Your task to perform on an android device: turn on showing notifications on the lock screen Image 0: 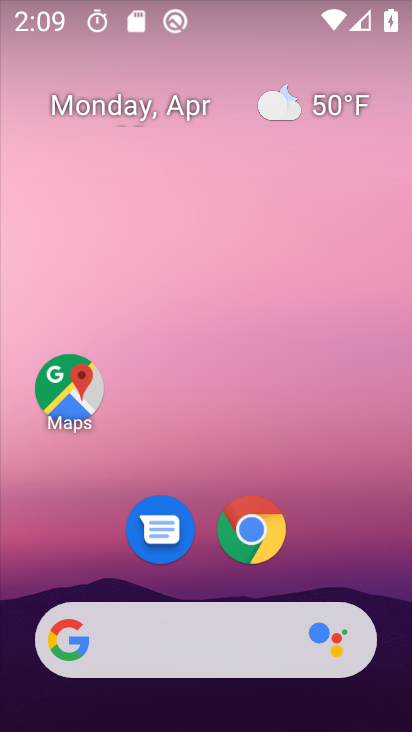
Step 0: drag from (347, 254) to (343, 173)
Your task to perform on an android device: turn on showing notifications on the lock screen Image 1: 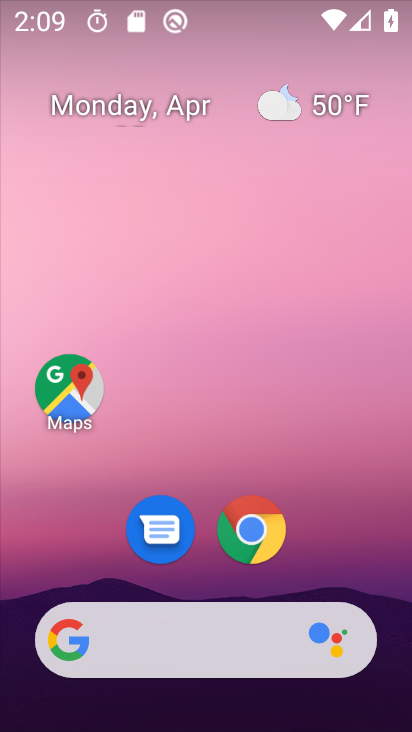
Step 1: drag from (396, 666) to (385, 214)
Your task to perform on an android device: turn on showing notifications on the lock screen Image 2: 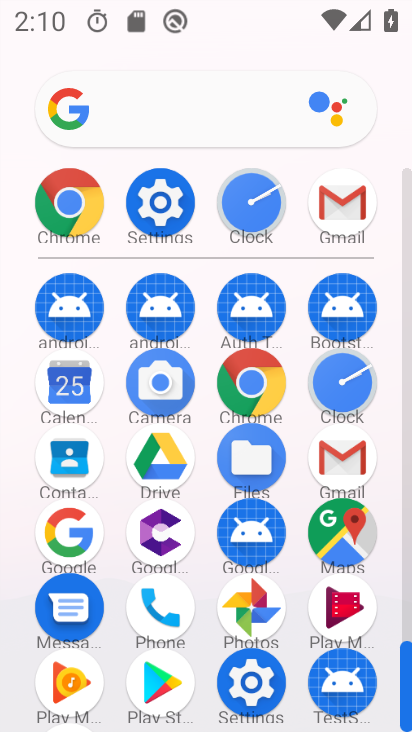
Step 2: click (151, 196)
Your task to perform on an android device: turn on showing notifications on the lock screen Image 3: 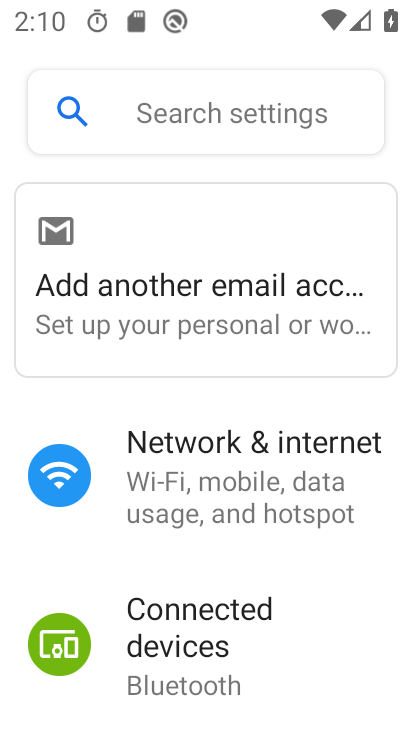
Step 3: click (319, 419)
Your task to perform on an android device: turn on showing notifications on the lock screen Image 4: 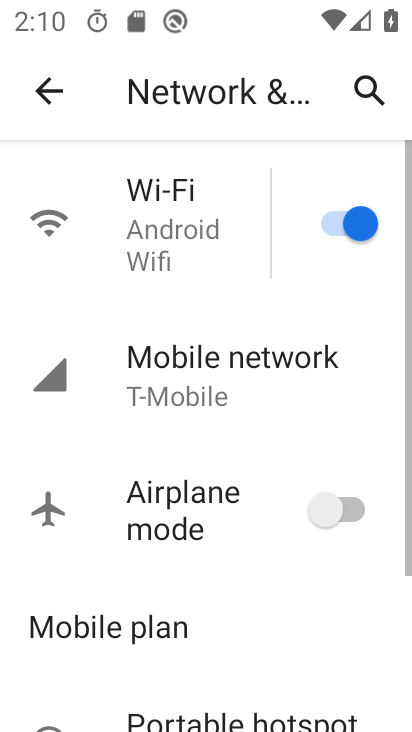
Step 4: drag from (358, 689) to (318, 447)
Your task to perform on an android device: turn on showing notifications on the lock screen Image 5: 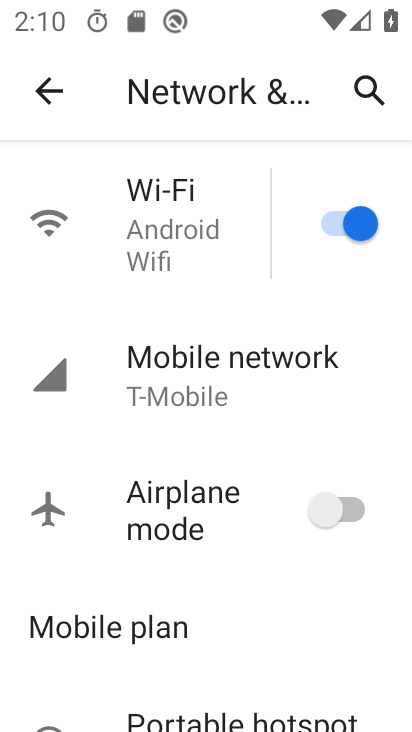
Step 5: click (40, 83)
Your task to perform on an android device: turn on showing notifications on the lock screen Image 6: 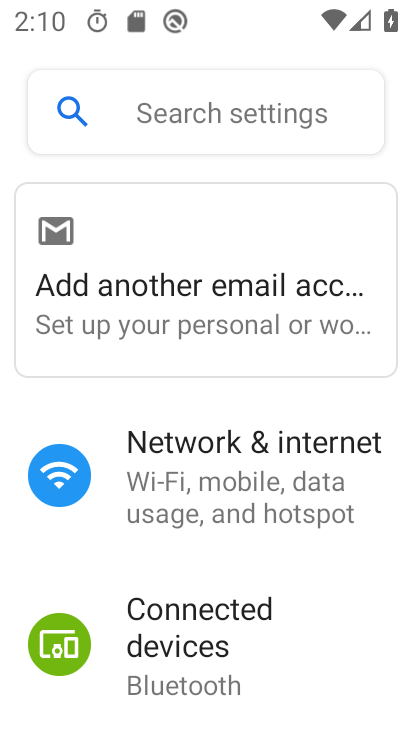
Step 6: drag from (363, 417) to (358, 292)
Your task to perform on an android device: turn on showing notifications on the lock screen Image 7: 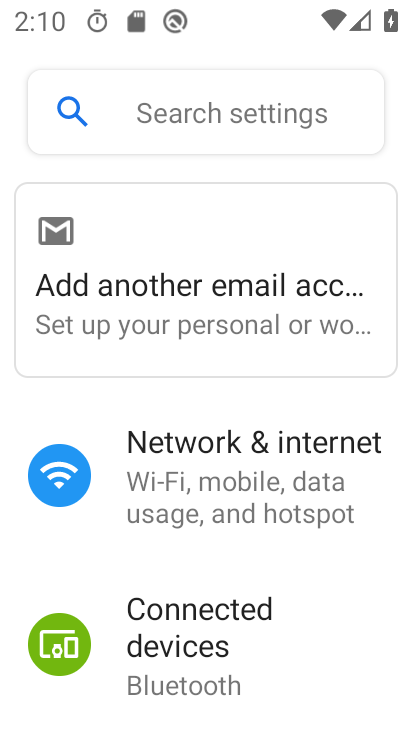
Step 7: drag from (350, 677) to (356, 189)
Your task to perform on an android device: turn on showing notifications on the lock screen Image 8: 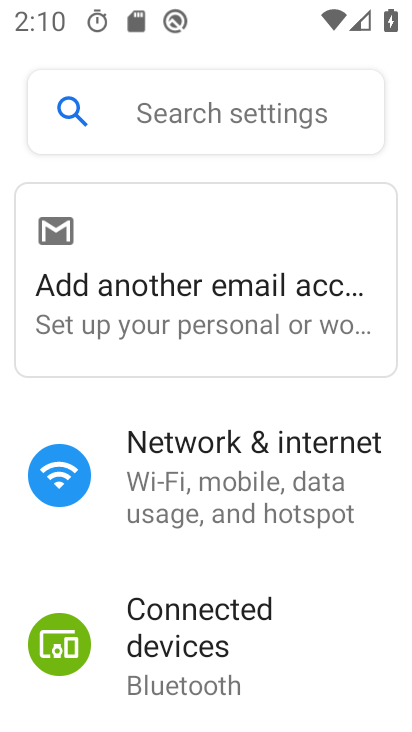
Step 8: drag from (346, 564) to (334, 417)
Your task to perform on an android device: turn on showing notifications on the lock screen Image 9: 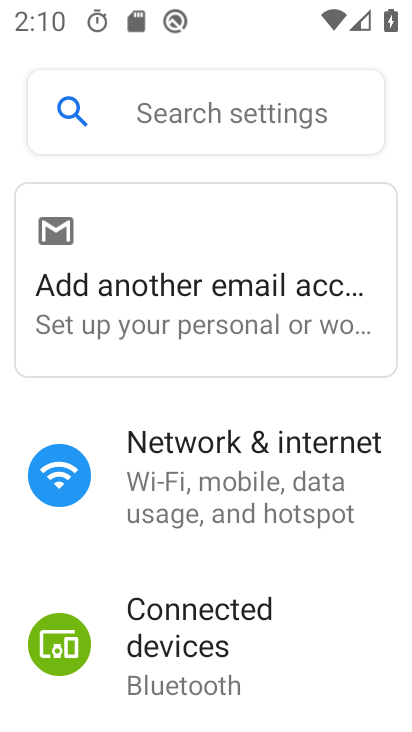
Step 9: drag from (378, 250) to (378, 215)
Your task to perform on an android device: turn on showing notifications on the lock screen Image 10: 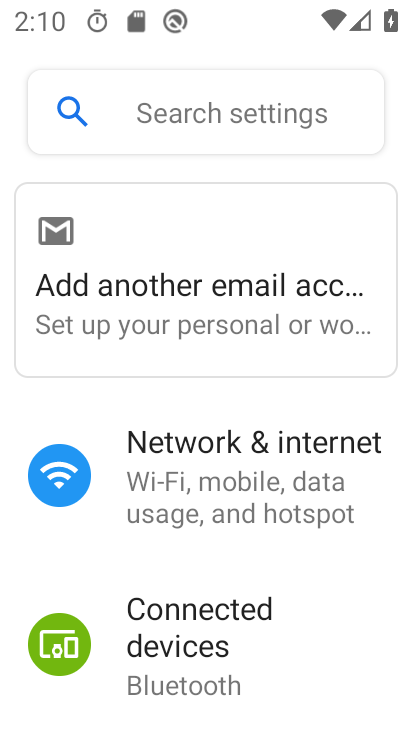
Step 10: drag from (365, 680) to (384, 320)
Your task to perform on an android device: turn on showing notifications on the lock screen Image 11: 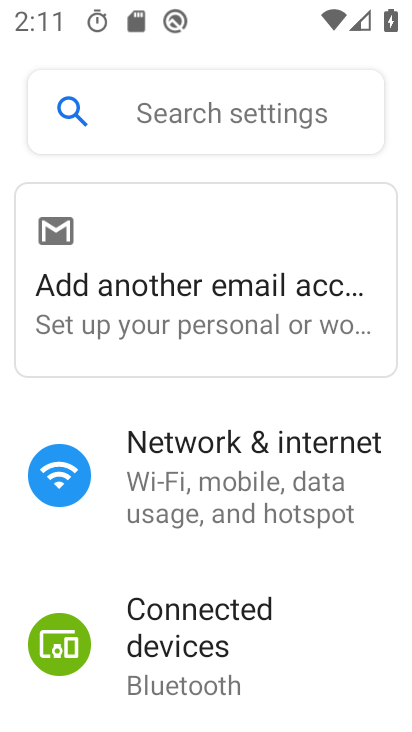
Step 11: drag from (364, 502) to (364, 332)
Your task to perform on an android device: turn on showing notifications on the lock screen Image 12: 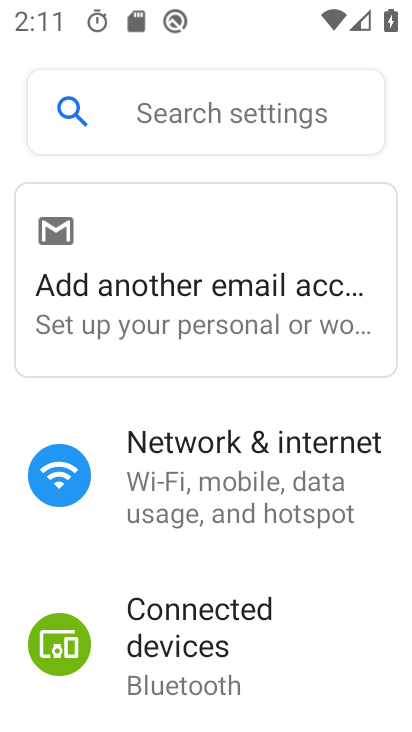
Step 12: drag from (356, 700) to (341, 269)
Your task to perform on an android device: turn on showing notifications on the lock screen Image 13: 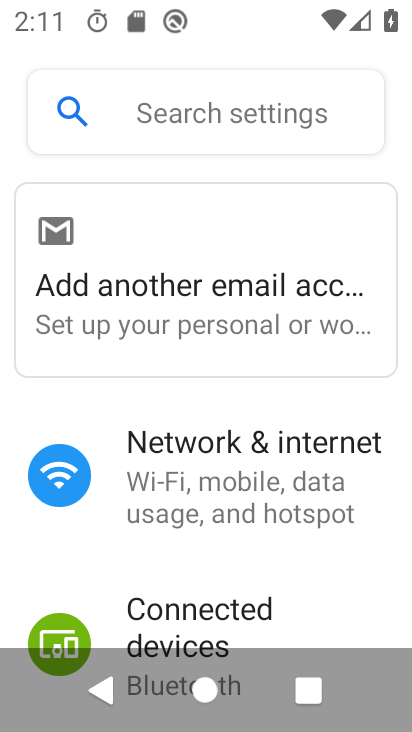
Step 13: click (331, 139)
Your task to perform on an android device: turn on showing notifications on the lock screen Image 14: 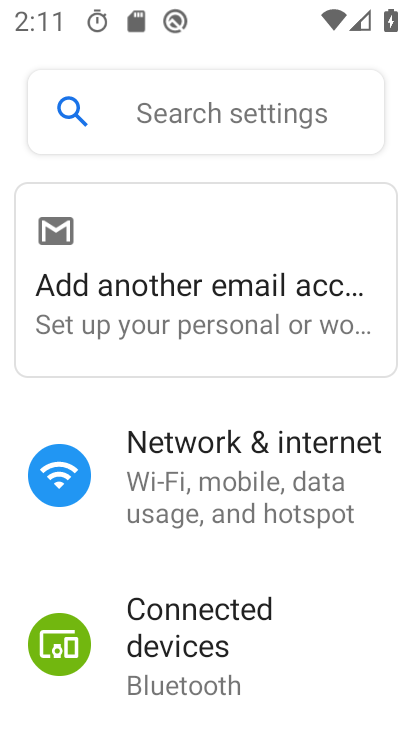
Step 14: drag from (350, 593) to (339, 304)
Your task to perform on an android device: turn on showing notifications on the lock screen Image 15: 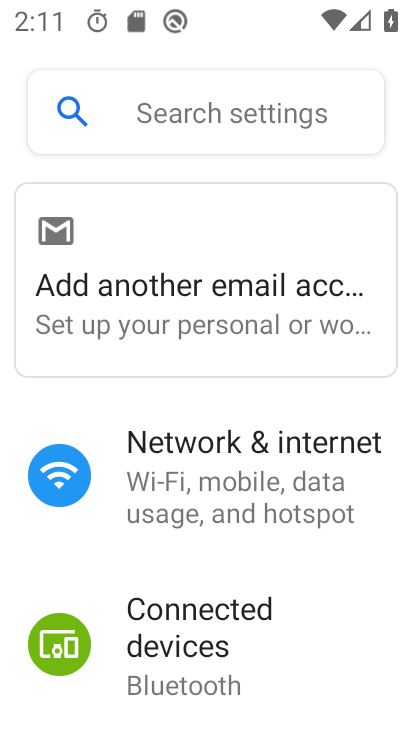
Step 15: drag from (345, 334) to (336, 173)
Your task to perform on an android device: turn on showing notifications on the lock screen Image 16: 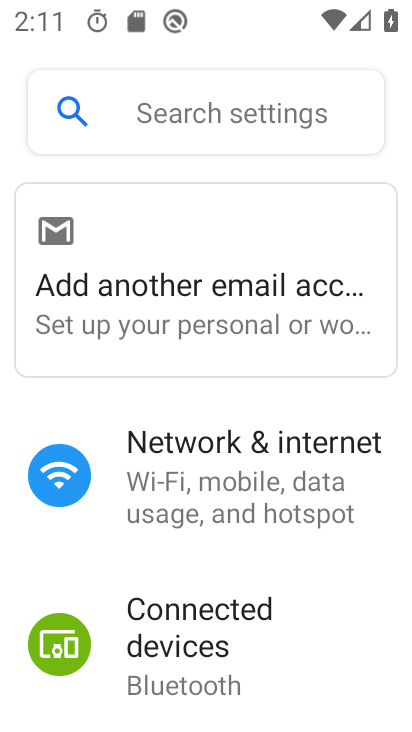
Step 16: drag from (337, 658) to (307, 347)
Your task to perform on an android device: turn on showing notifications on the lock screen Image 17: 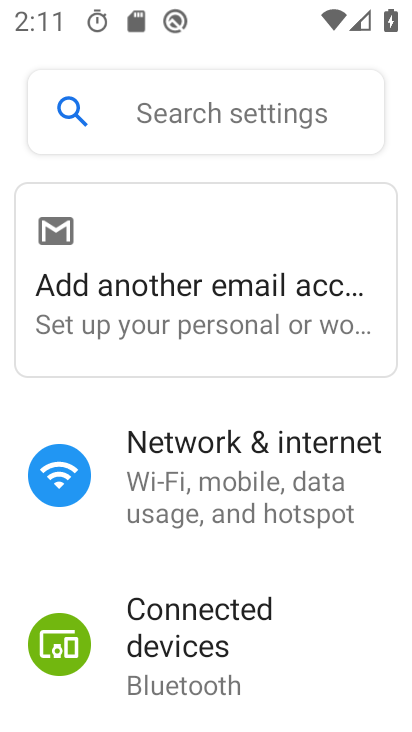
Step 17: press back button
Your task to perform on an android device: turn on showing notifications on the lock screen Image 18: 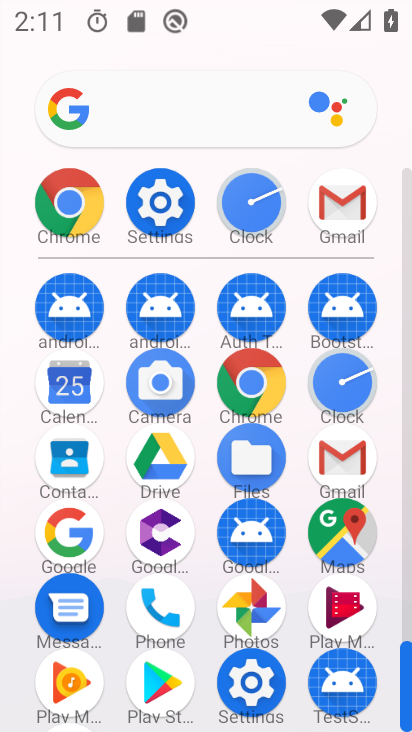
Step 18: click (151, 194)
Your task to perform on an android device: turn on showing notifications on the lock screen Image 19: 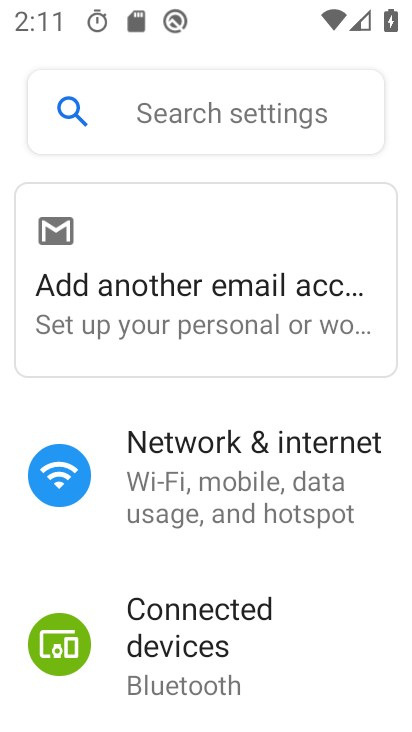
Step 19: drag from (311, 691) to (322, 296)
Your task to perform on an android device: turn on showing notifications on the lock screen Image 20: 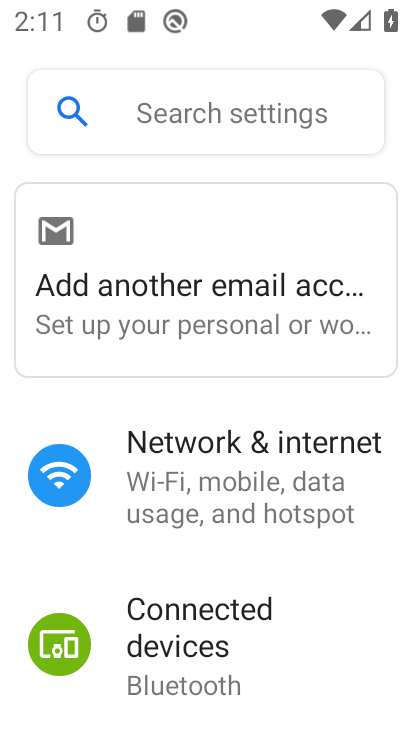
Step 20: click (316, 370)
Your task to perform on an android device: turn on showing notifications on the lock screen Image 21: 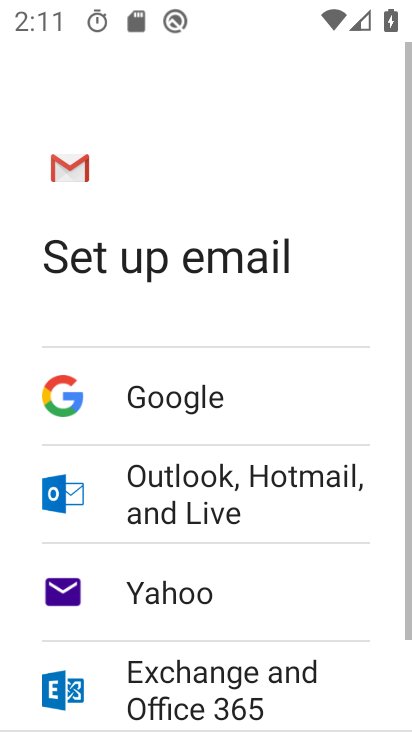
Step 21: drag from (320, 321) to (320, 273)
Your task to perform on an android device: turn on showing notifications on the lock screen Image 22: 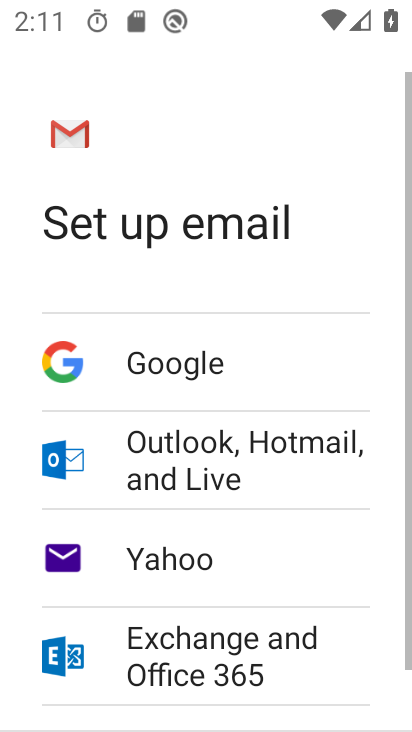
Step 22: press back button
Your task to perform on an android device: turn on showing notifications on the lock screen Image 23: 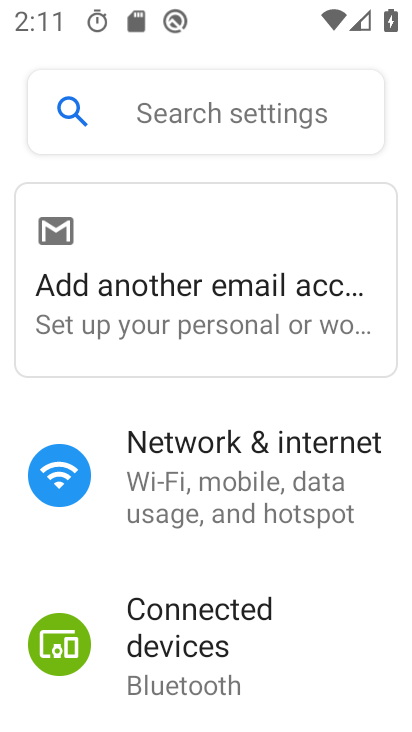
Step 23: drag from (352, 669) to (321, 262)
Your task to perform on an android device: turn on showing notifications on the lock screen Image 24: 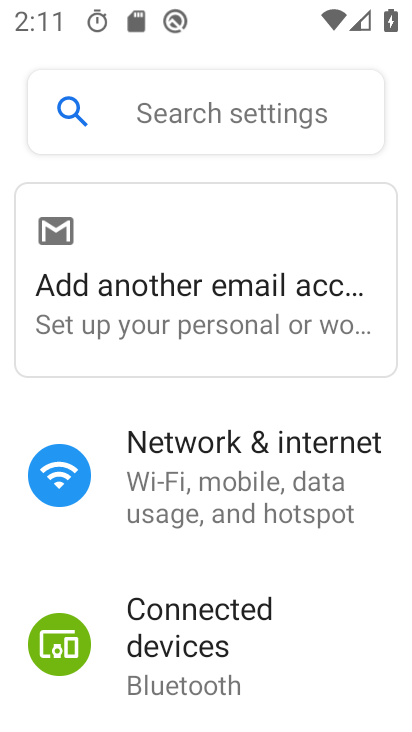
Step 24: drag from (358, 572) to (330, 306)
Your task to perform on an android device: turn on showing notifications on the lock screen Image 25: 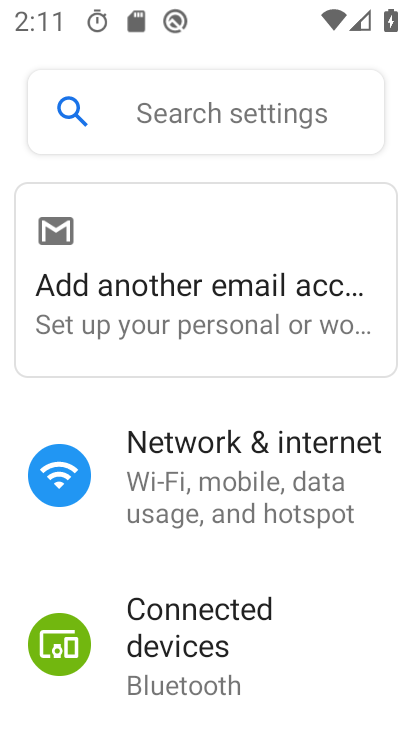
Step 25: drag from (338, 513) to (339, 408)
Your task to perform on an android device: turn on showing notifications on the lock screen Image 26: 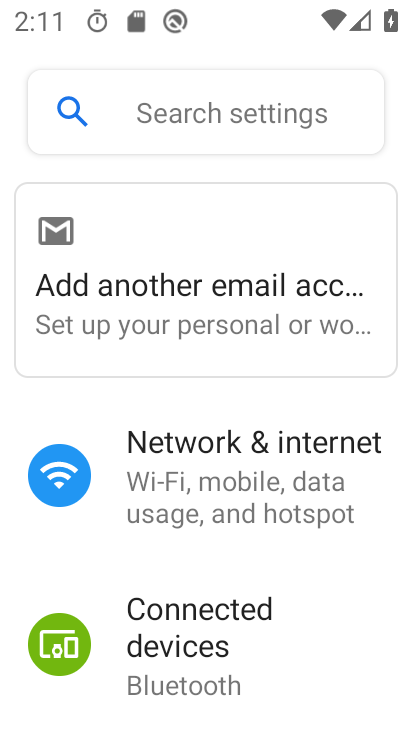
Step 26: drag from (347, 692) to (351, 341)
Your task to perform on an android device: turn on showing notifications on the lock screen Image 27: 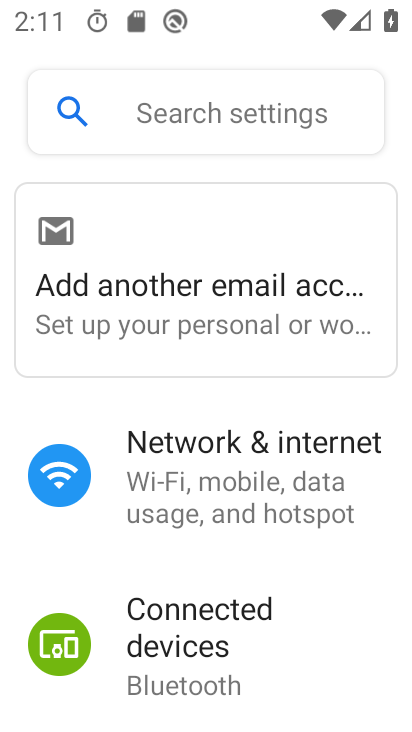
Step 27: drag from (341, 617) to (298, 319)
Your task to perform on an android device: turn on showing notifications on the lock screen Image 28: 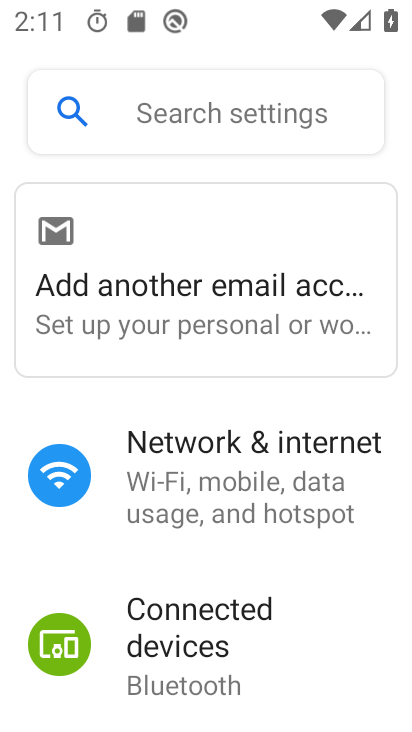
Step 28: drag from (329, 593) to (262, 220)
Your task to perform on an android device: turn on showing notifications on the lock screen Image 29: 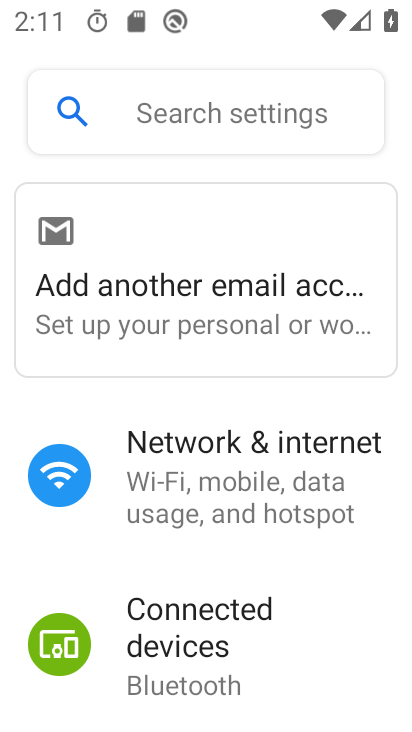
Step 29: drag from (342, 585) to (337, 297)
Your task to perform on an android device: turn on showing notifications on the lock screen Image 30: 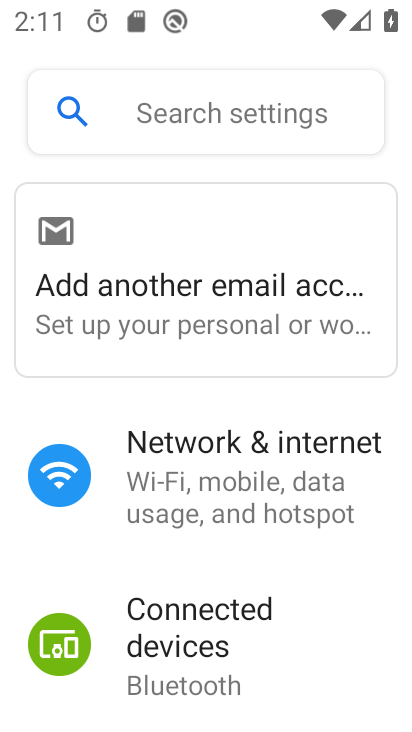
Step 30: drag from (361, 640) to (381, 313)
Your task to perform on an android device: turn on showing notifications on the lock screen Image 31: 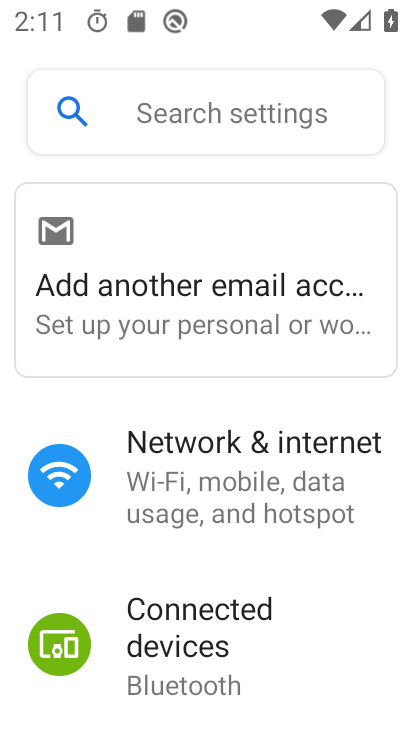
Step 31: drag from (372, 375) to (372, 263)
Your task to perform on an android device: turn on showing notifications on the lock screen Image 32: 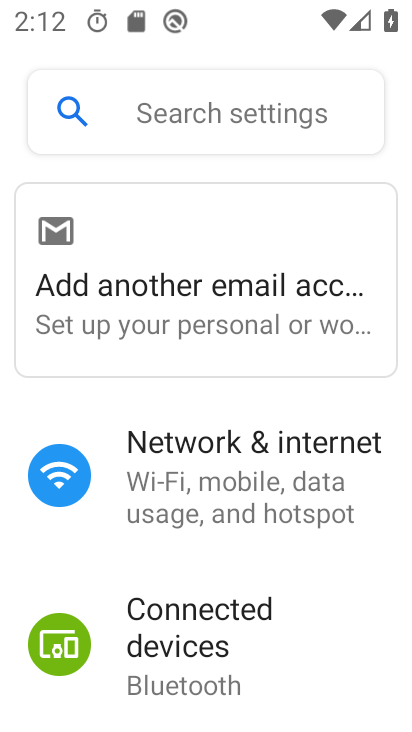
Step 32: drag from (369, 713) to (263, 228)
Your task to perform on an android device: turn on showing notifications on the lock screen Image 33: 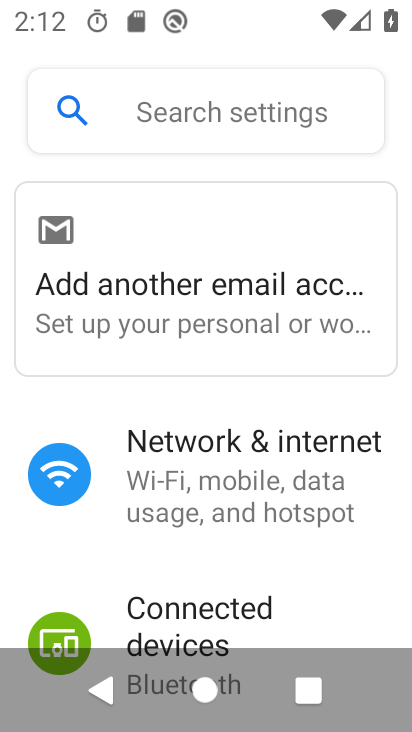
Step 33: drag from (343, 621) to (346, 320)
Your task to perform on an android device: turn on showing notifications on the lock screen Image 34: 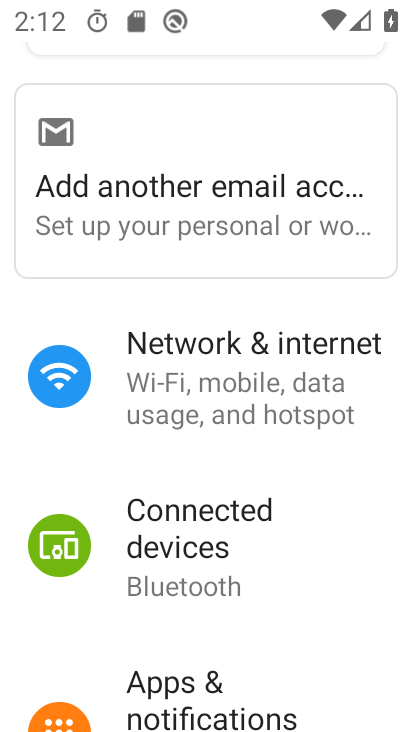
Step 34: drag from (359, 709) to (357, 222)
Your task to perform on an android device: turn on showing notifications on the lock screen Image 35: 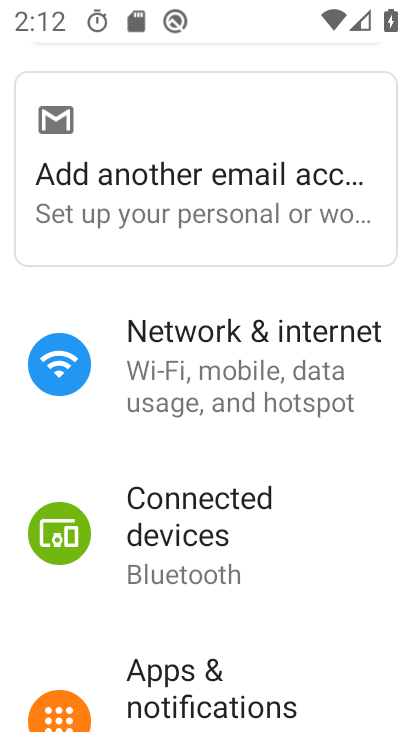
Step 35: click (176, 690)
Your task to perform on an android device: turn on showing notifications on the lock screen Image 36: 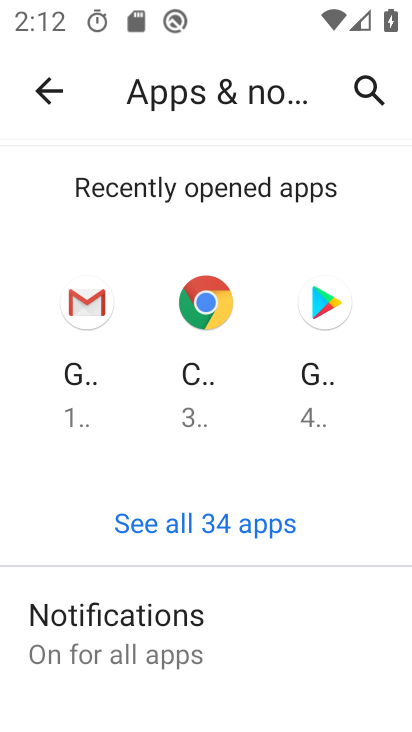
Step 36: drag from (334, 463) to (333, 200)
Your task to perform on an android device: turn on showing notifications on the lock screen Image 37: 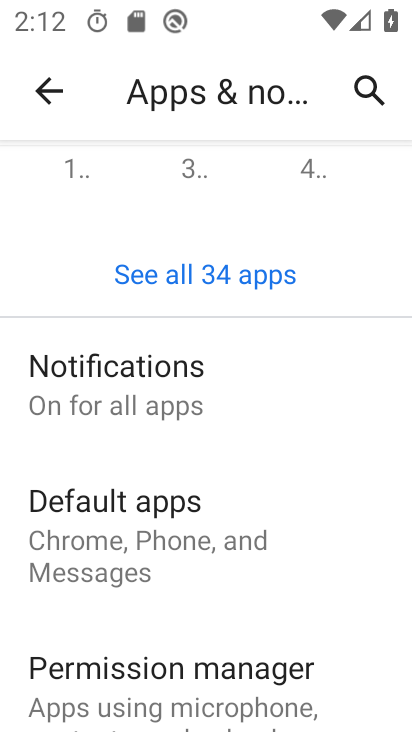
Step 37: drag from (357, 449) to (340, 299)
Your task to perform on an android device: turn on showing notifications on the lock screen Image 38: 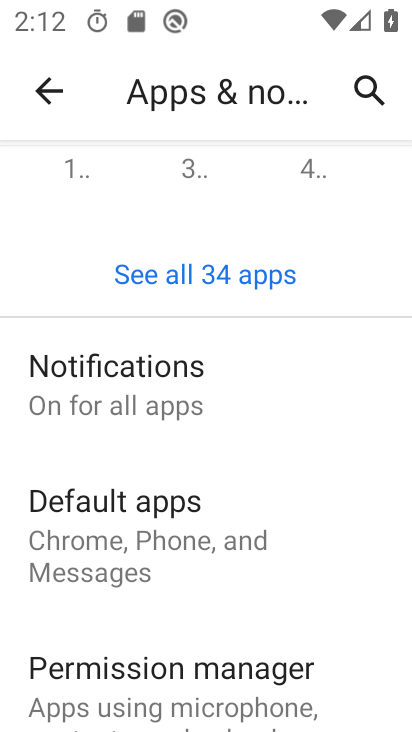
Step 38: click (339, 229)
Your task to perform on an android device: turn on showing notifications on the lock screen Image 39: 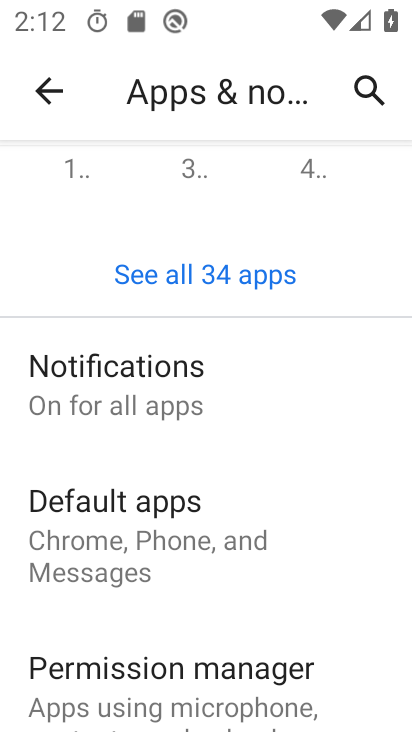
Step 39: drag from (354, 688) to (338, 294)
Your task to perform on an android device: turn on showing notifications on the lock screen Image 40: 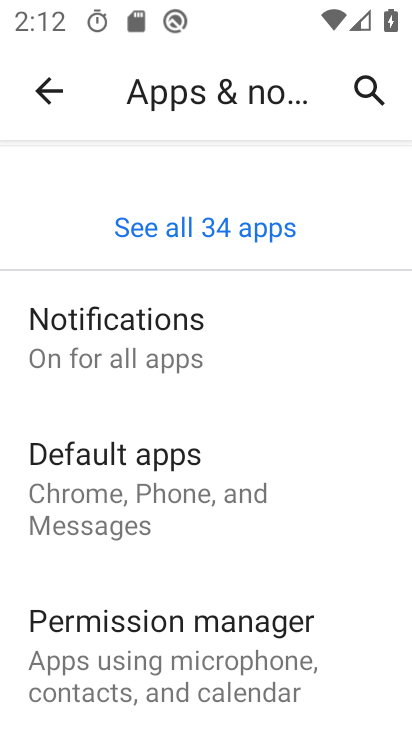
Step 40: click (88, 325)
Your task to perform on an android device: turn on showing notifications on the lock screen Image 41: 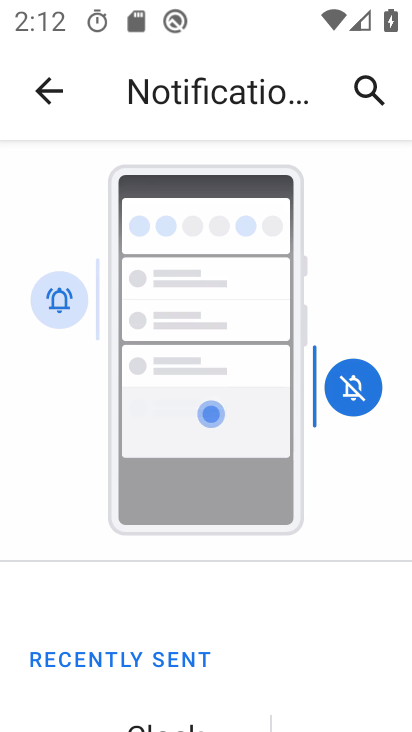
Step 41: drag from (294, 680) to (299, 243)
Your task to perform on an android device: turn on showing notifications on the lock screen Image 42: 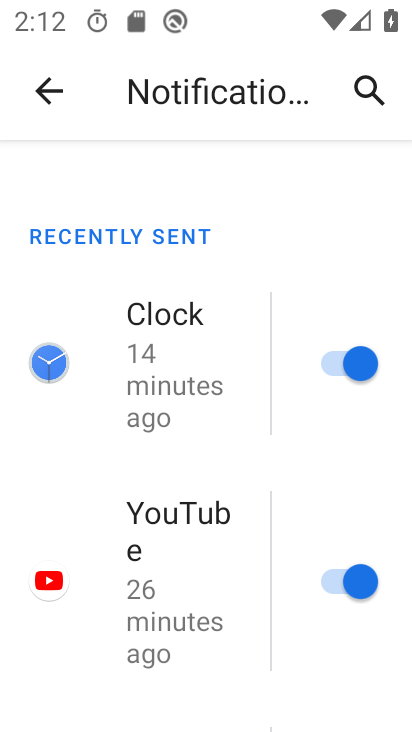
Step 42: drag from (260, 606) to (238, 317)
Your task to perform on an android device: turn on showing notifications on the lock screen Image 43: 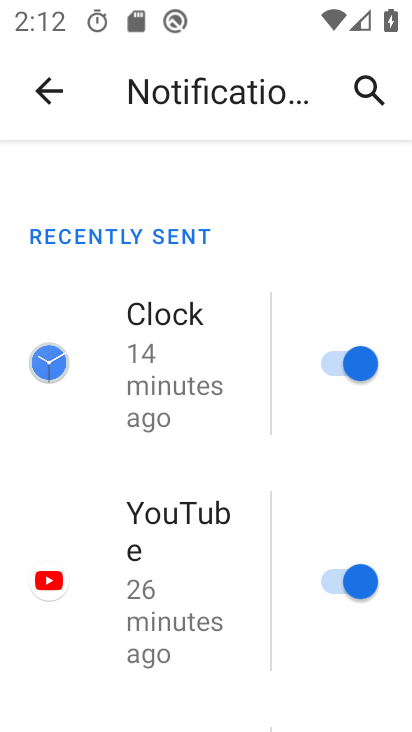
Step 43: drag from (269, 506) to (250, 245)
Your task to perform on an android device: turn on showing notifications on the lock screen Image 44: 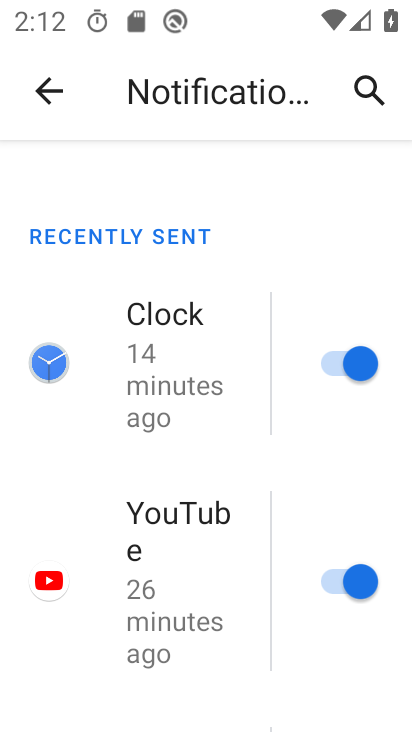
Step 44: drag from (314, 441) to (303, 220)
Your task to perform on an android device: turn on showing notifications on the lock screen Image 45: 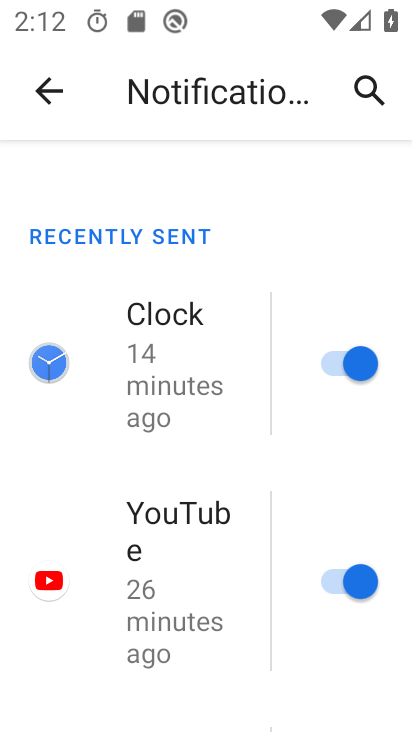
Step 45: drag from (280, 618) to (271, 317)
Your task to perform on an android device: turn on showing notifications on the lock screen Image 46: 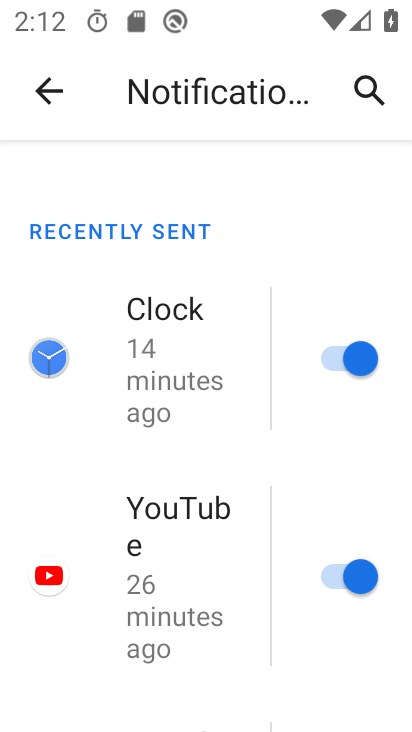
Step 46: drag from (275, 708) to (278, 243)
Your task to perform on an android device: turn on showing notifications on the lock screen Image 47: 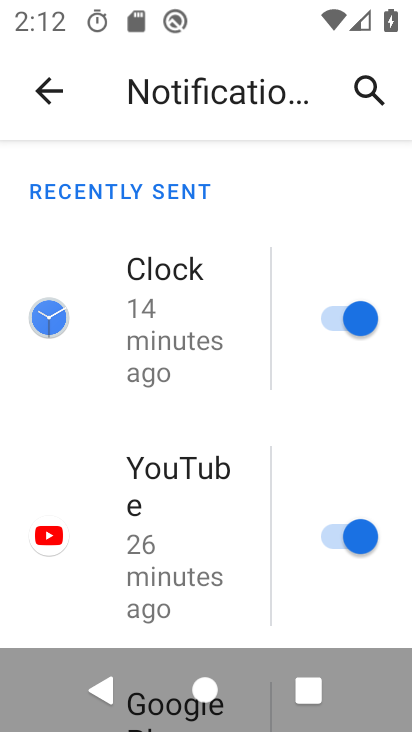
Step 47: drag from (281, 539) to (273, 214)
Your task to perform on an android device: turn on showing notifications on the lock screen Image 48: 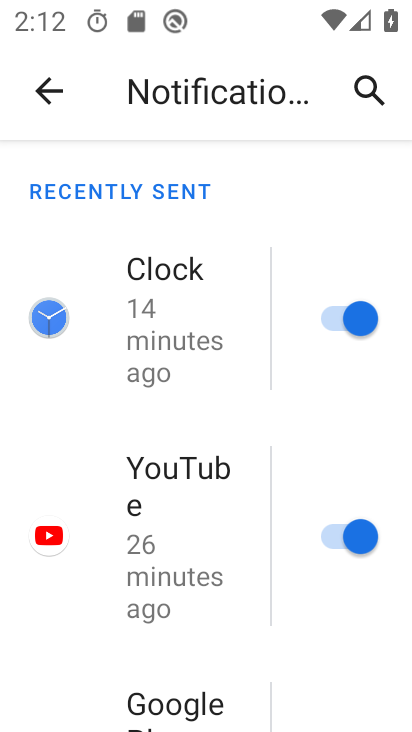
Step 48: drag from (311, 465) to (319, 273)
Your task to perform on an android device: turn on showing notifications on the lock screen Image 49: 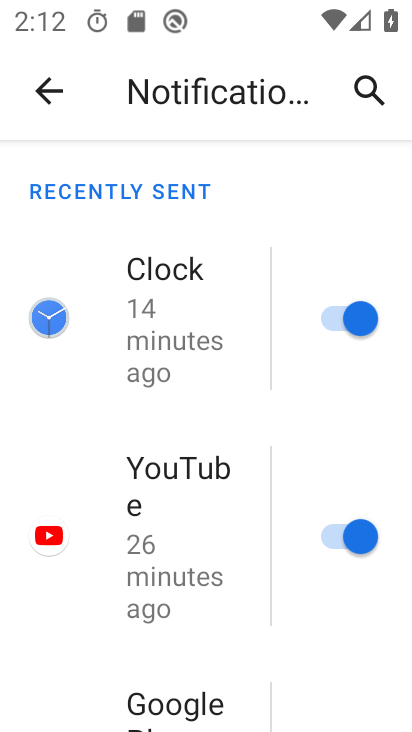
Step 49: drag from (276, 565) to (281, 278)
Your task to perform on an android device: turn on showing notifications on the lock screen Image 50: 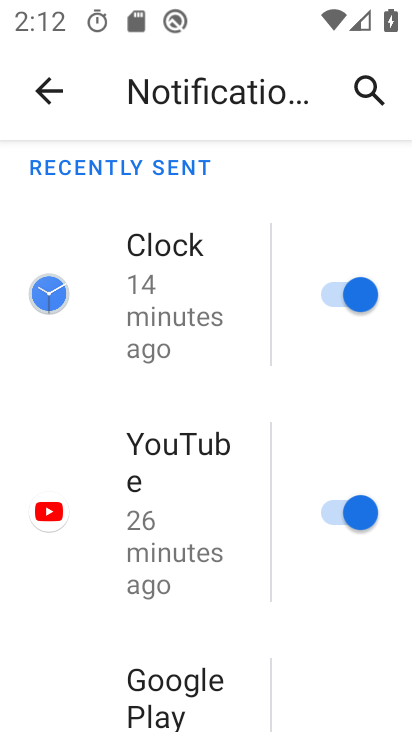
Step 50: drag from (256, 491) to (242, 210)
Your task to perform on an android device: turn on showing notifications on the lock screen Image 51: 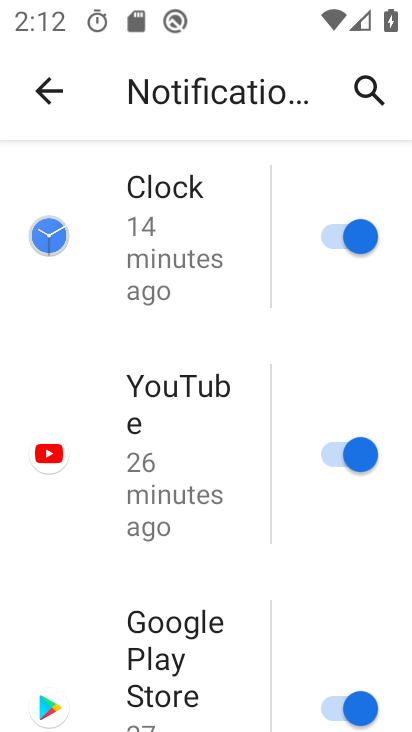
Step 51: drag from (273, 661) to (232, 104)
Your task to perform on an android device: turn on showing notifications on the lock screen Image 52: 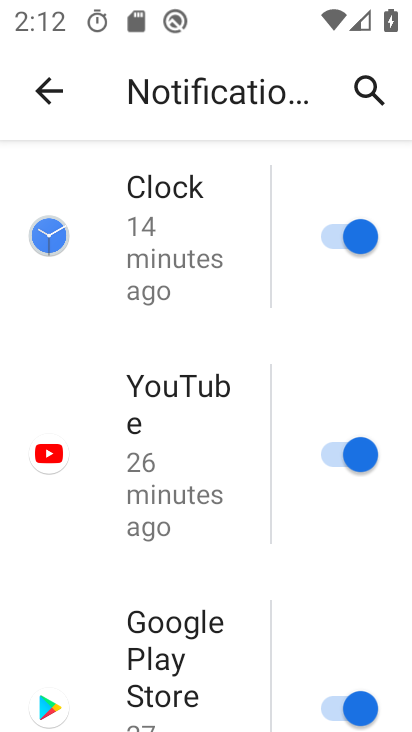
Step 52: drag from (258, 698) to (245, 249)
Your task to perform on an android device: turn on showing notifications on the lock screen Image 53: 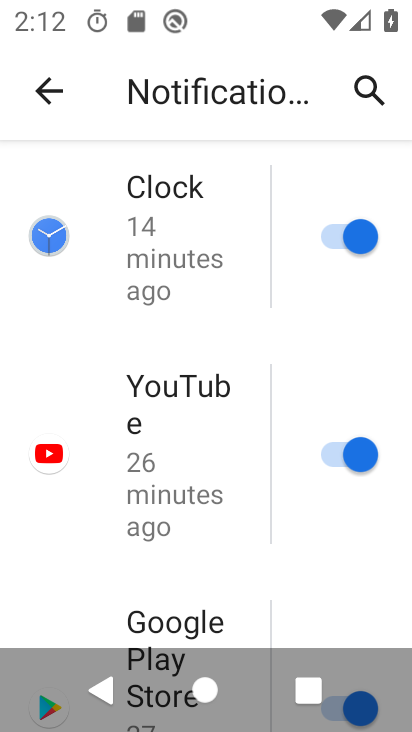
Step 53: click (281, 40)
Your task to perform on an android device: turn on showing notifications on the lock screen Image 54: 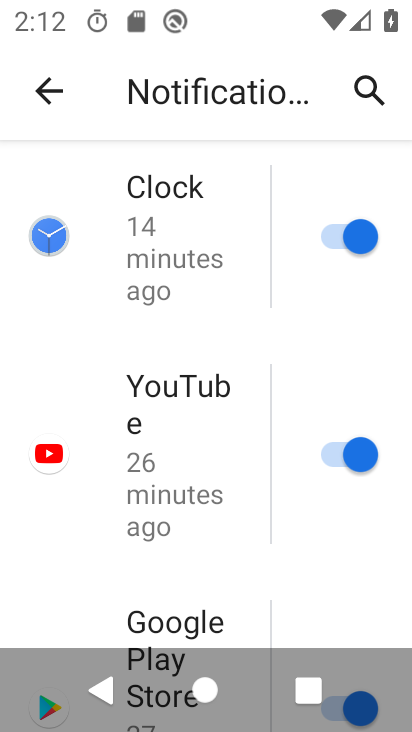
Step 54: drag from (292, 574) to (290, 265)
Your task to perform on an android device: turn on showing notifications on the lock screen Image 55: 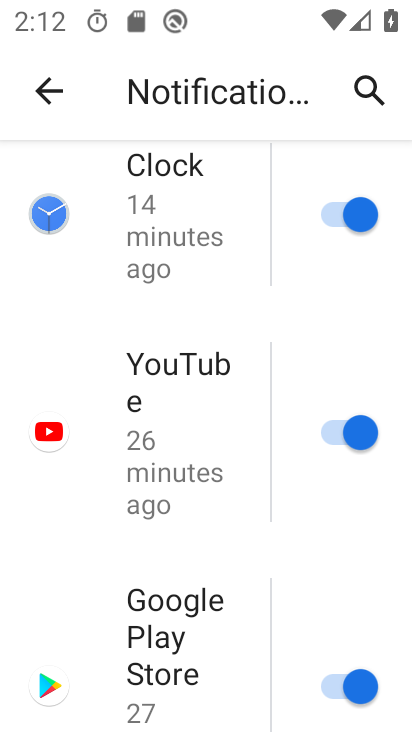
Step 55: drag from (262, 285) to (251, 218)
Your task to perform on an android device: turn on showing notifications on the lock screen Image 56: 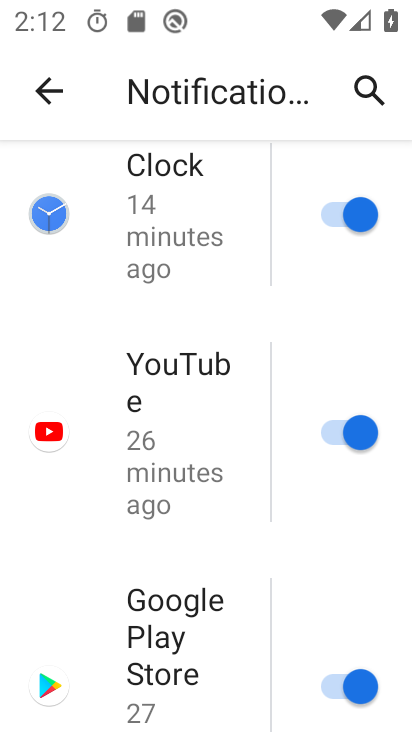
Step 56: drag from (270, 700) to (255, 279)
Your task to perform on an android device: turn on showing notifications on the lock screen Image 57: 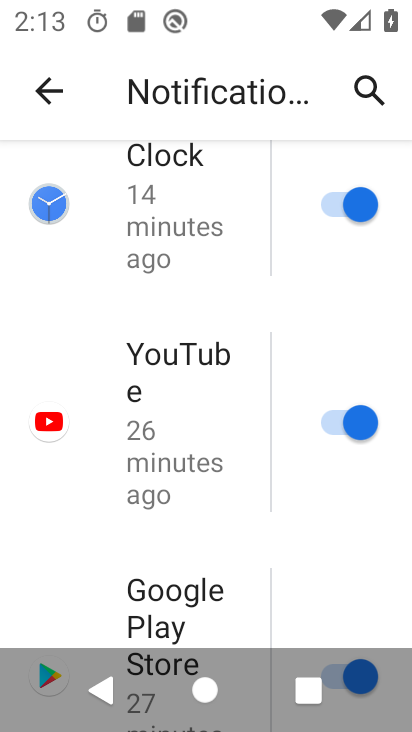
Step 57: drag from (287, 527) to (284, 119)
Your task to perform on an android device: turn on showing notifications on the lock screen Image 58: 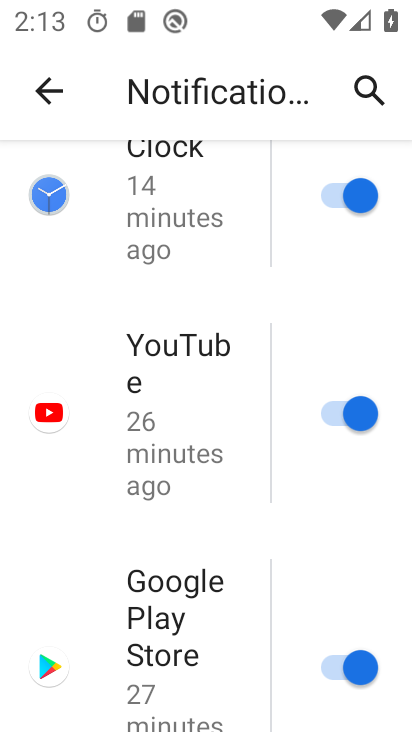
Step 58: drag from (282, 650) to (274, 308)
Your task to perform on an android device: turn on showing notifications on the lock screen Image 59: 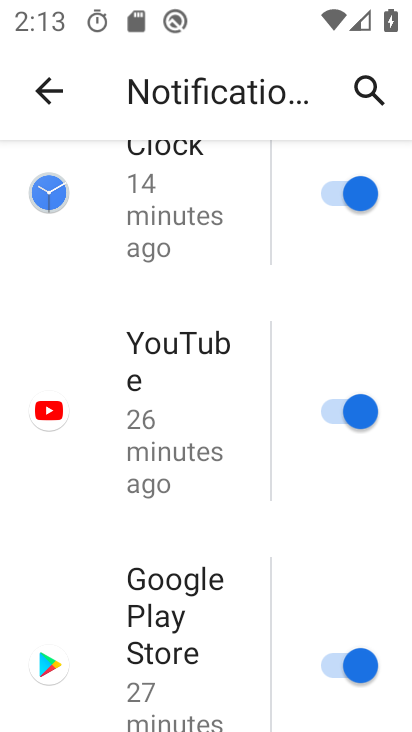
Step 59: drag from (280, 565) to (284, 240)
Your task to perform on an android device: turn on showing notifications on the lock screen Image 60: 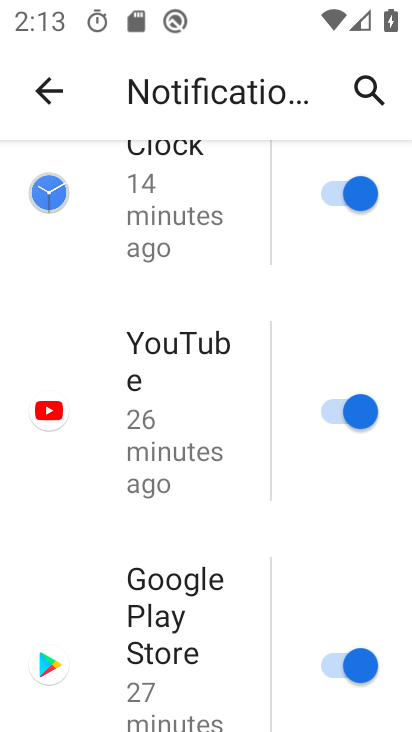
Step 60: drag from (280, 673) to (286, 228)
Your task to perform on an android device: turn on showing notifications on the lock screen Image 61: 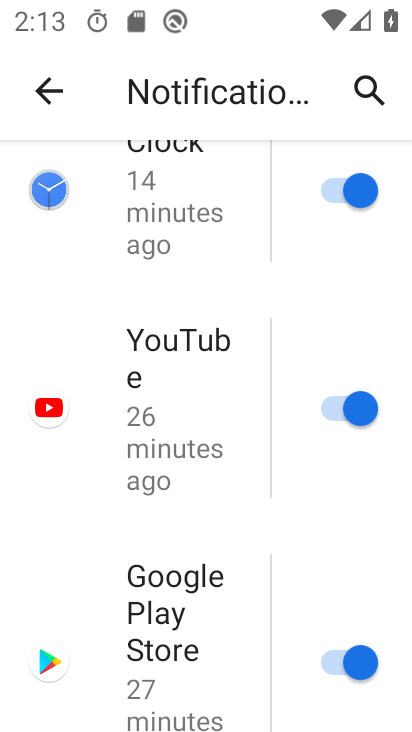
Step 61: drag from (271, 435) to (280, 288)
Your task to perform on an android device: turn on showing notifications on the lock screen Image 62: 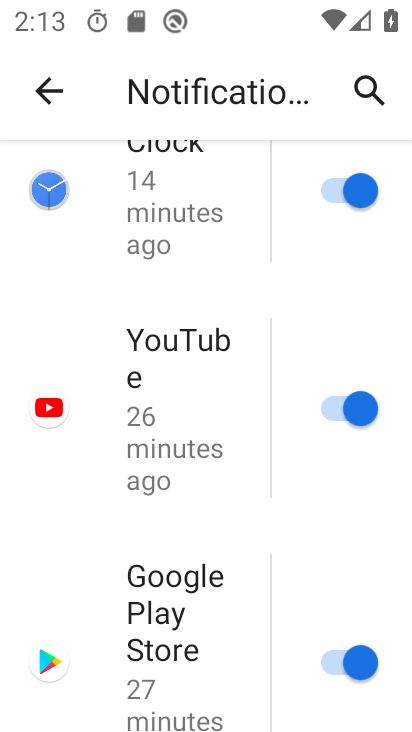
Step 62: drag from (219, 444) to (211, 319)
Your task to perform on an android device: turn on showing notifications on the lock screen Image 63: 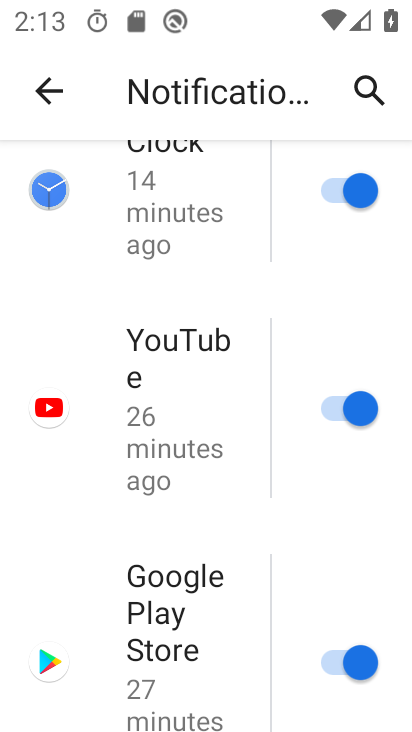
Step 63: drag from (248, 540) to (265, 305)
Your task to perform on an android device: turn on showing notifications on the lock screen Image 64: 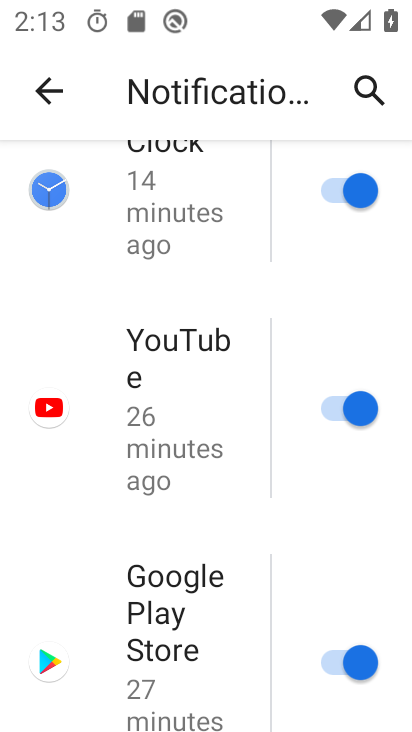
Step 64: drag from (270, 471) to (243, 331)
Your task to perform on an android device: turn on showing notifications on the lock screen Image 65: 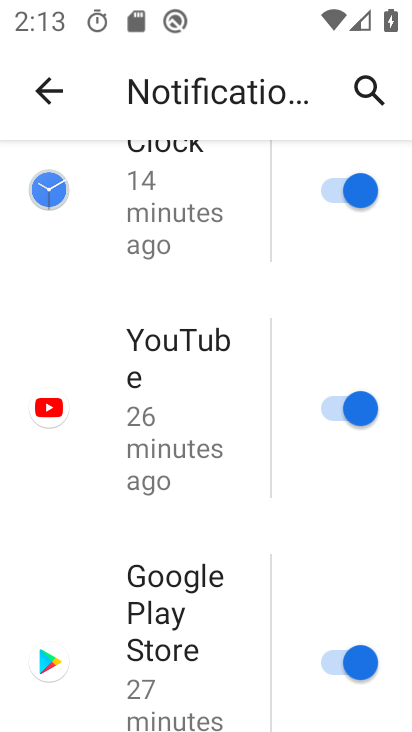
Step 65: drag from (256, 426) to (234, 279)
Your task to perform on an android device: turn on showing notifications on the lock screen Image 66: 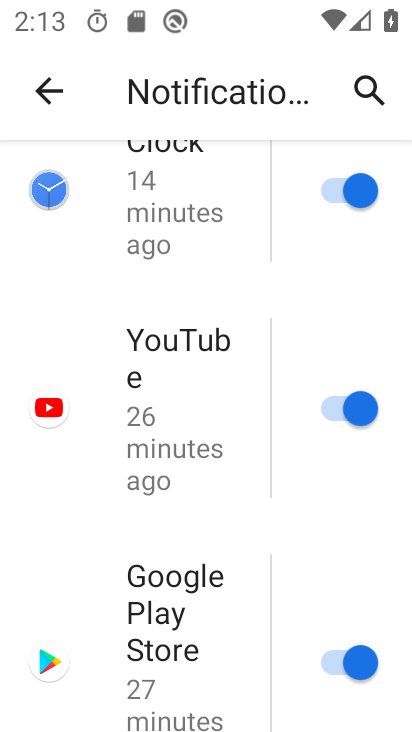
Step 66: drag from (257, 611) to (258, 280)
Your task to perform on an android device: turn on showing notifications on the lock screen Image 67: 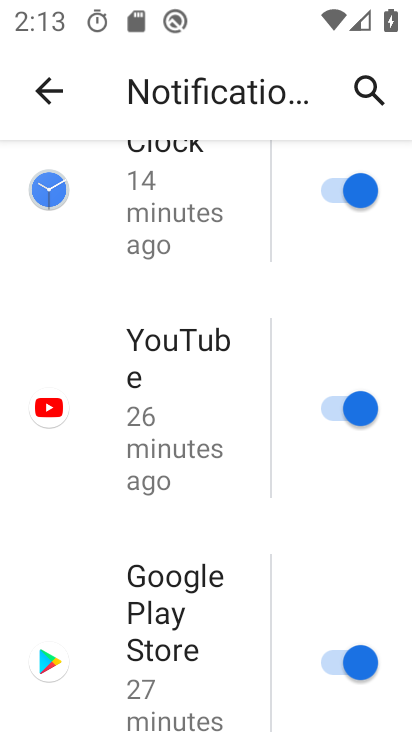
Step 67: drag from (258, 391) to (258, 241)
Your task to perform on an android device: turn on showing notifications on the lock screen Image 68: 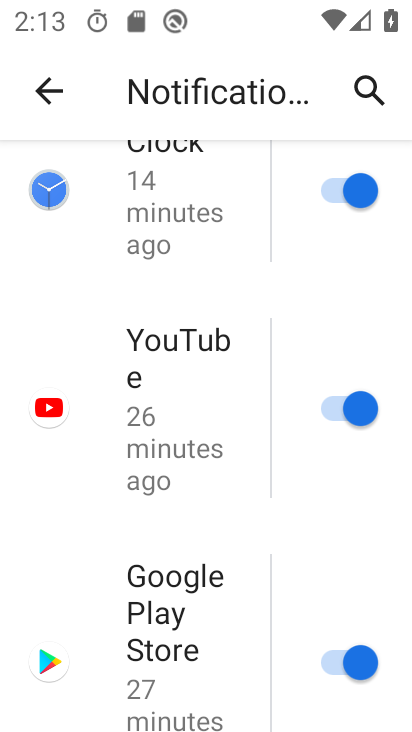
Step 68: drag from (270, 722) to (268, 298)
Your task to perform on an android device: turn on showing notifications on the lock screen Image 69: 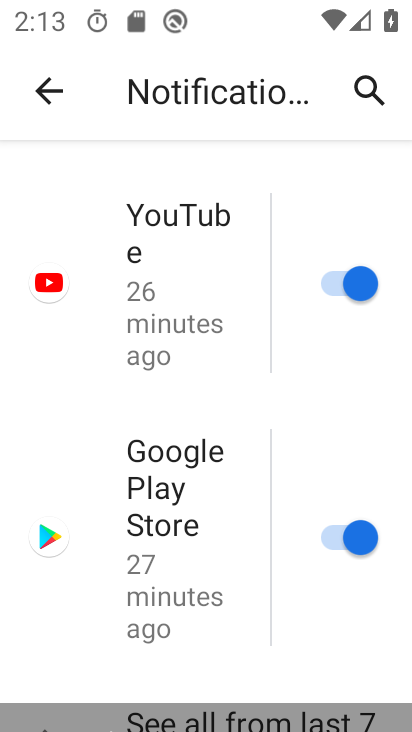
Step 69: drag from (262, 624) to (254, 308)
Your task to perform on an android device: turn on showing notifications on the lock screen Image 70: 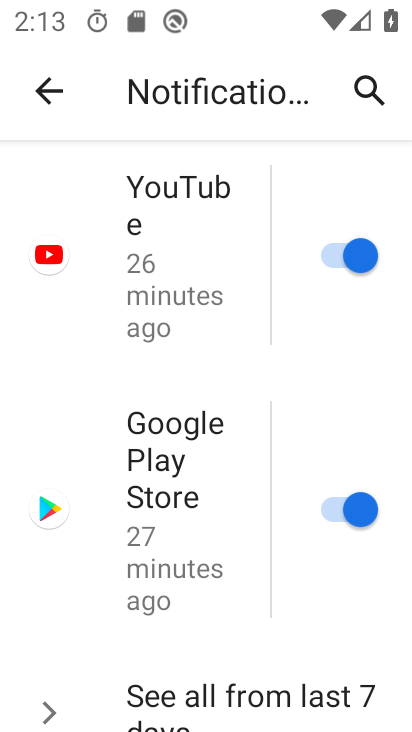
Step 70: drag from (273, 658) to (265, 323)
Your task to perform on an android device: turn on showing notifications on the lock screen Image 71: 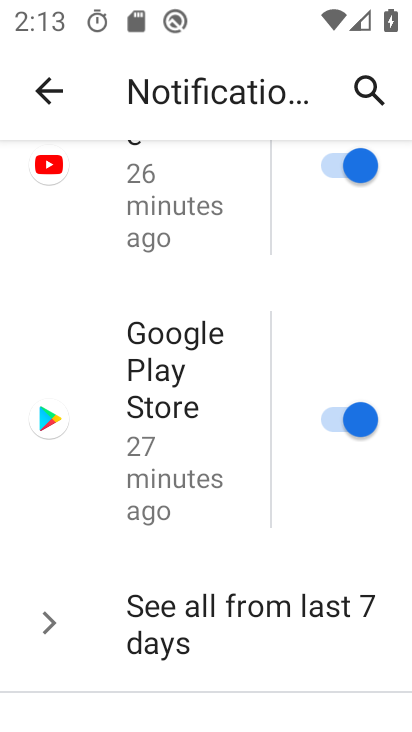
Step 71: drag from (265, 672) to (245, 267)
Your task to perform on an android device: turn on showing notifications on the lock screen Image 72: 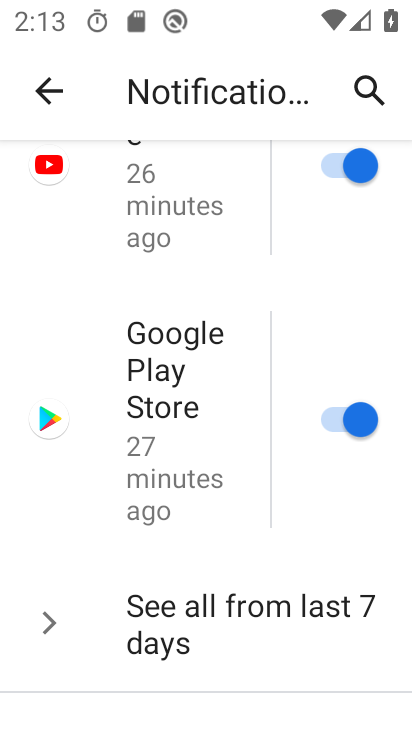
Step 72: drag from (253, 655) to (261, 422)
Your task to perform on an android device: turn on showing notifications on the lock screen Image 73: 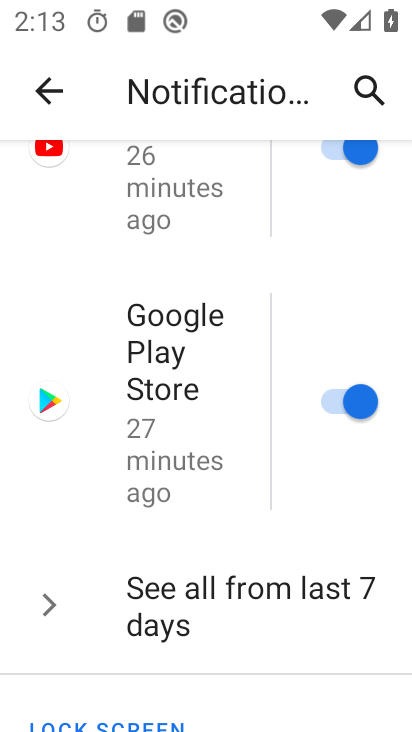
Step 73: drag from (253, 675) to (225, 366)
Your task to perform on an android device: turn on showing notifications on the lock screen Image 74: 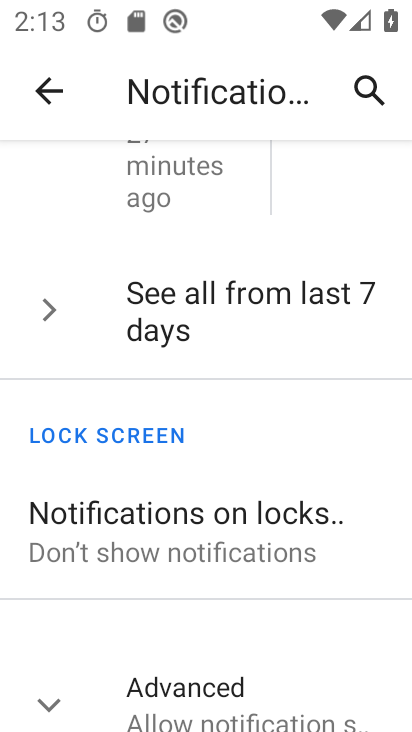
Step 74: click (121, 514)
Your task to perform on an android device: turn on showing notifications on the lock screen Image 75: 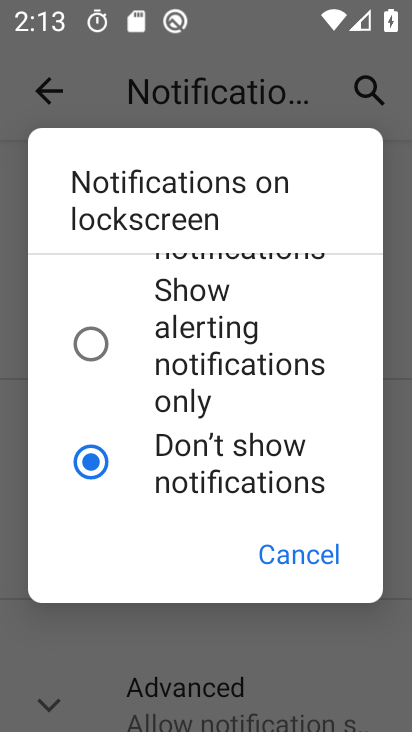
Step 75: drag from (246, 291) to (257, 499)
Your task to perform on an android device: turn on showing notifications on the lock screen Image 76: 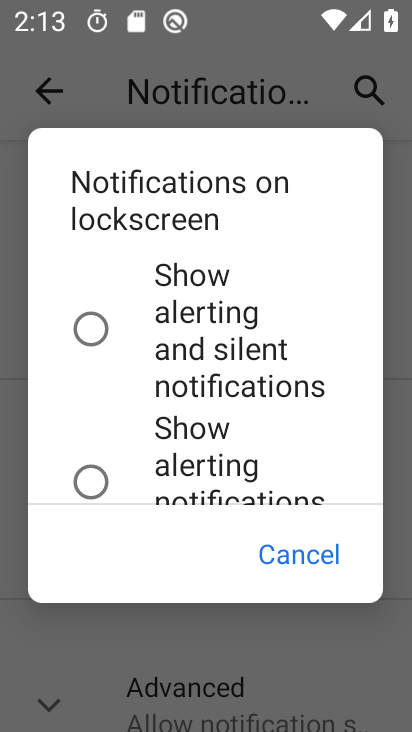
Step 76: click (95, 317)
Your task to perform on an android device: turn on showing notifications on the lock screen Image 77: 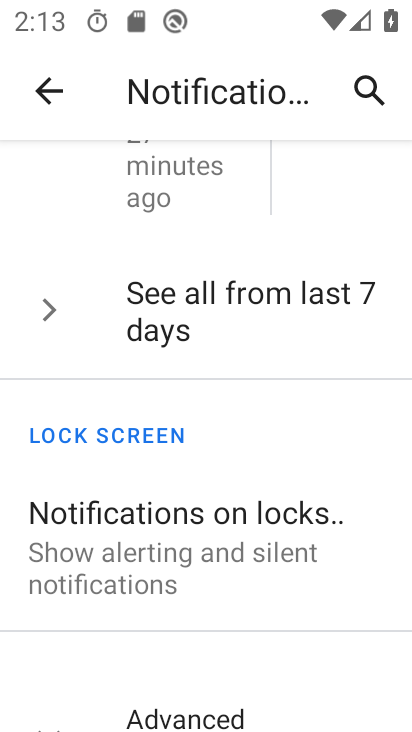
Step 77: task complete